Your task to perform on an android device: turn off airplane mode Image 0: 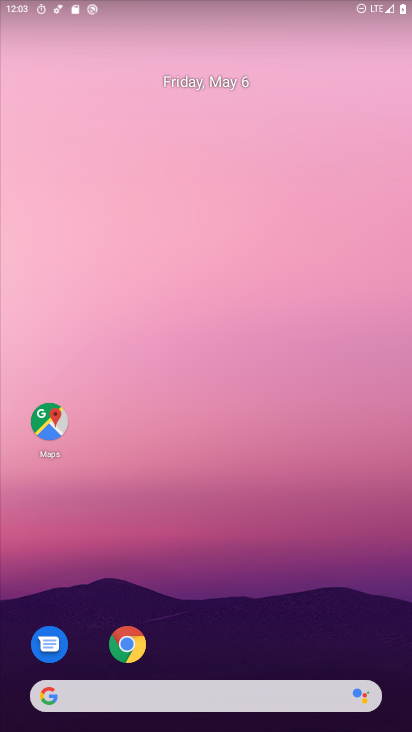
Step 0: drag from (346, 604) to (308, 249)
Your task to perform on an android device: turn off airplane mode Image 1: 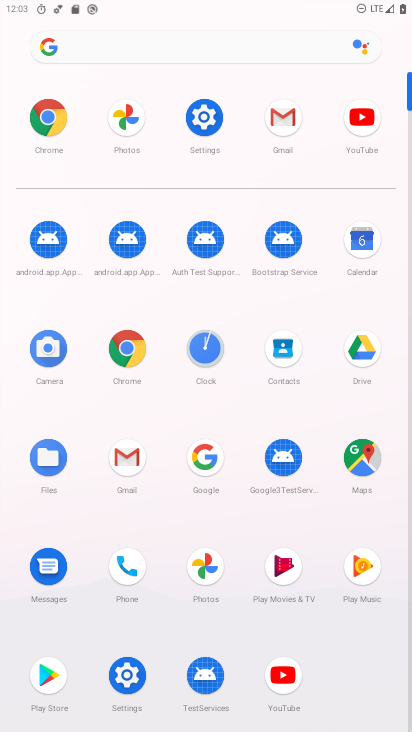
Step 1: click (216, 123)
Your task to perform on an android device: turn off airplane mode Image 2: 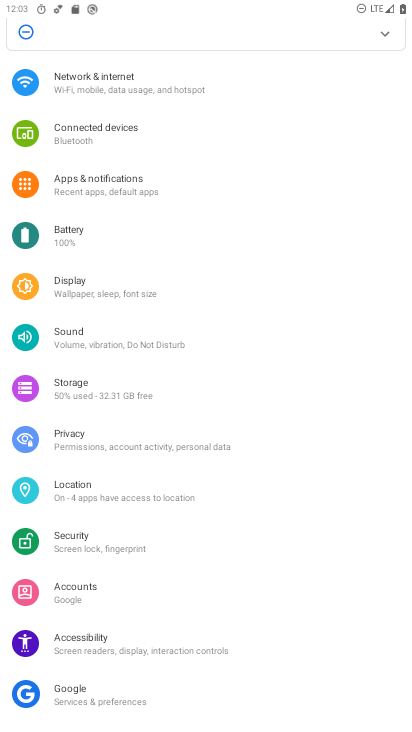
Step 2: click (167, 86)
Your task to perform on an android device: turn off airplane mode Image 3: 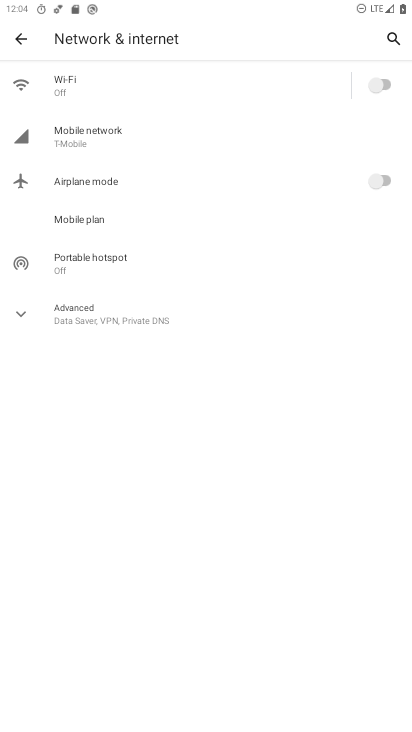
Step 3: task complete